Your task to perform on an android device: toggle priority inbox in the gmail app Image 0: 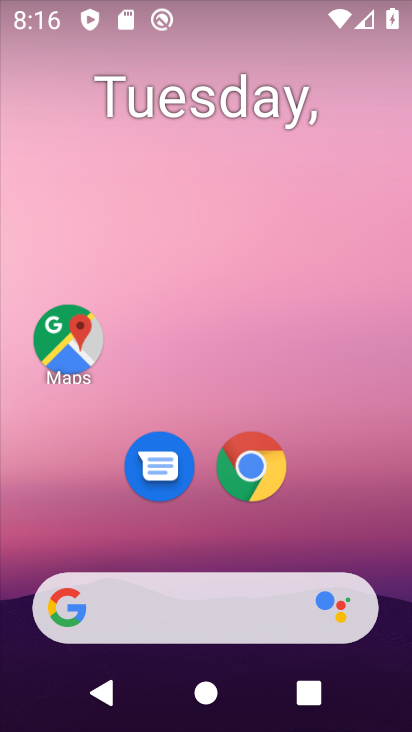
Step 0: drag from (375, 541) to (328, 96)
Your task to perform on an android device: toggle priority inbox in the gmail app Image 1: 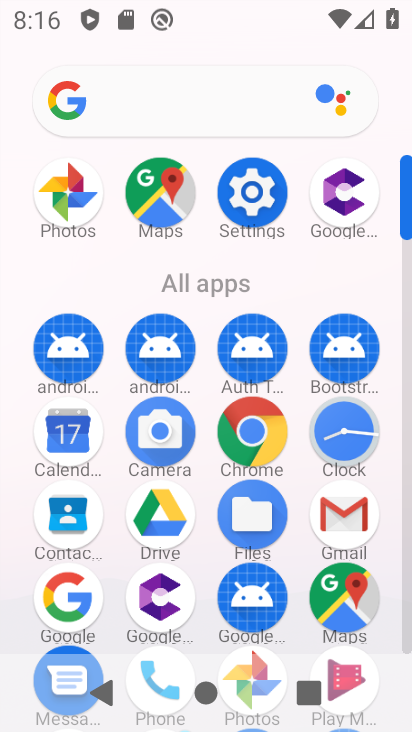
Step 1: click (341, 525)
Your task to perform on an android device: toggle priority inbox in the gmail app Image 2: 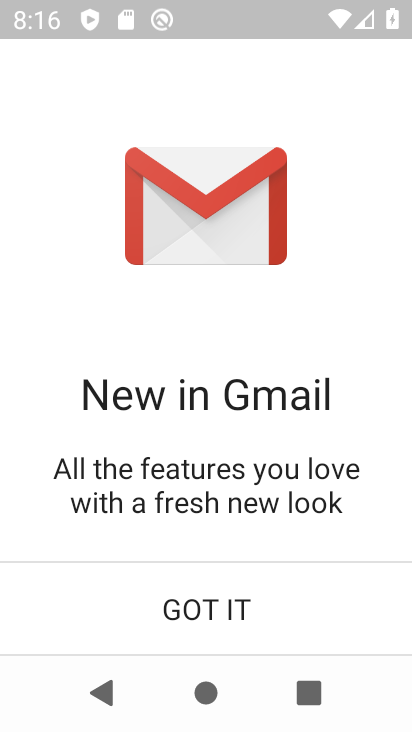
Step 2: click (237, 609)
Your task to perform on an android device: toggle priority inbox in the gmail app Image 3: 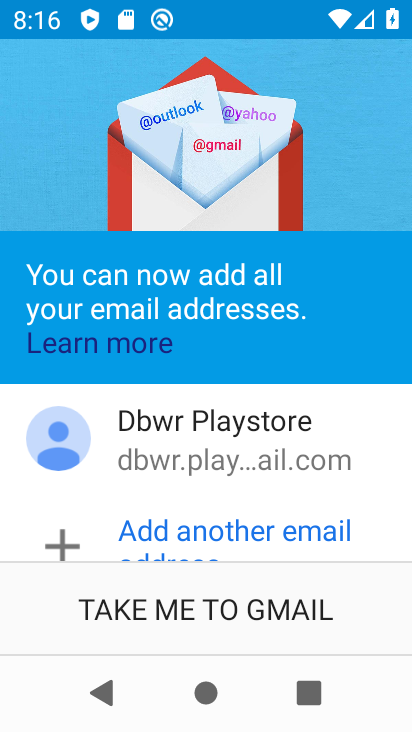
Step 3: click (237, 609)
Your task to perform on an android device: toggle priority inbox in the gmail app Image 4: 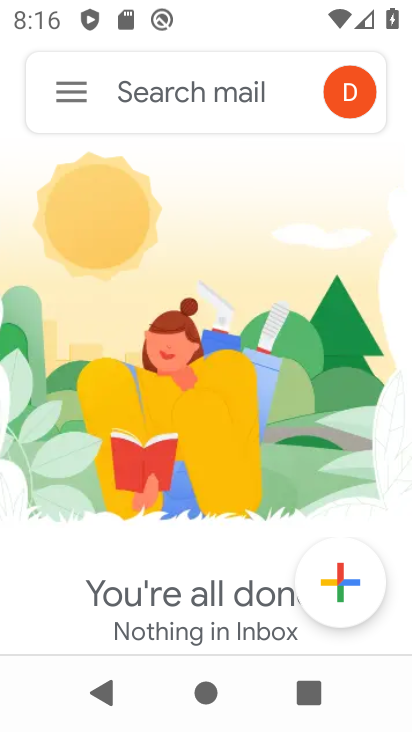
Step 4: click (65, 109)
Your task to perform on an android device: toggle priority inbox in the gmail app Image 5: 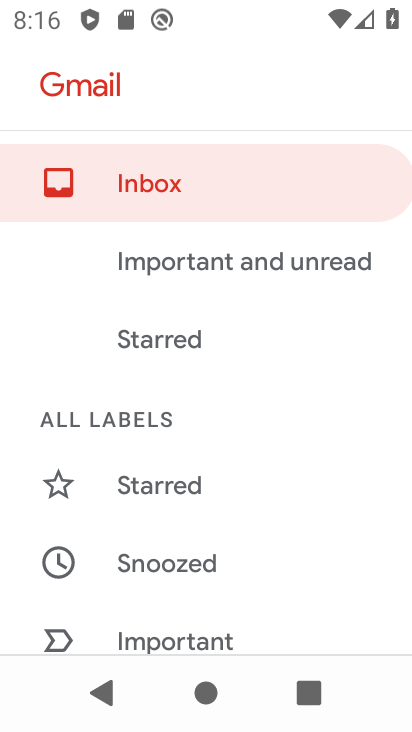
Step 5: drag from (368, 603) to (306, 117)
Your task to perform on an android device: toggle priority inbox in the gmail app Image 6: 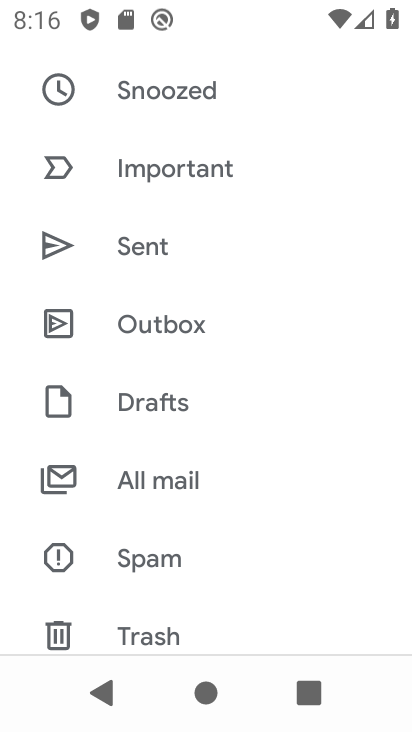
Step 6: drag from (337, 592) to (317, 115)
Your task to perform on an android device: toggle priority inbox in the gmail app Image 7: 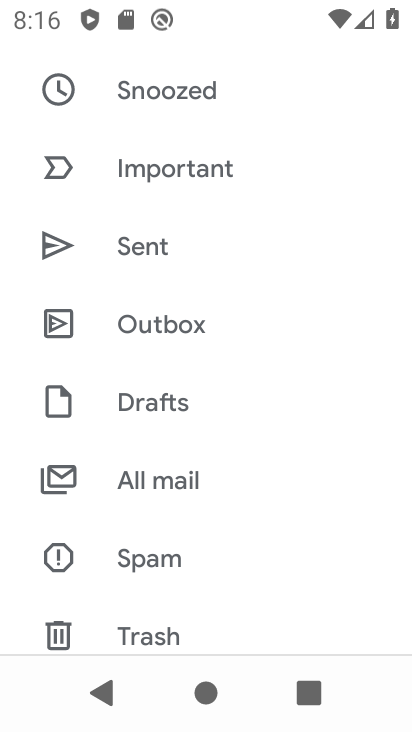
Step 7: drag from (246, 602) to (237, 93)
Your task to perform on an android device: toggle priority inbox in the gmail app Image 8: 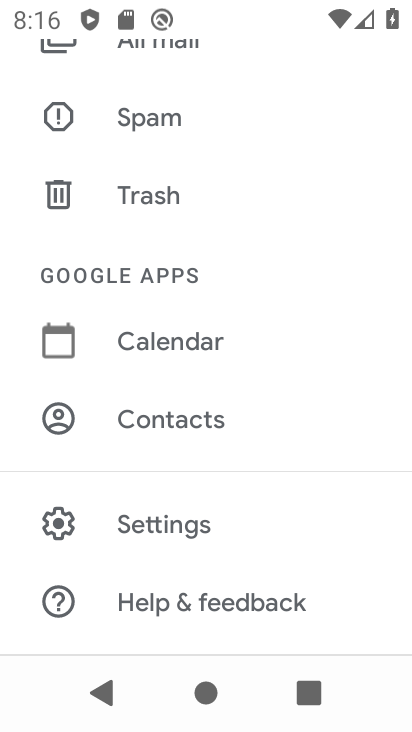
Step 8: click (196, 531)
Your task to perform on an android device: toggle priority inbox in the gmail app Image 9: 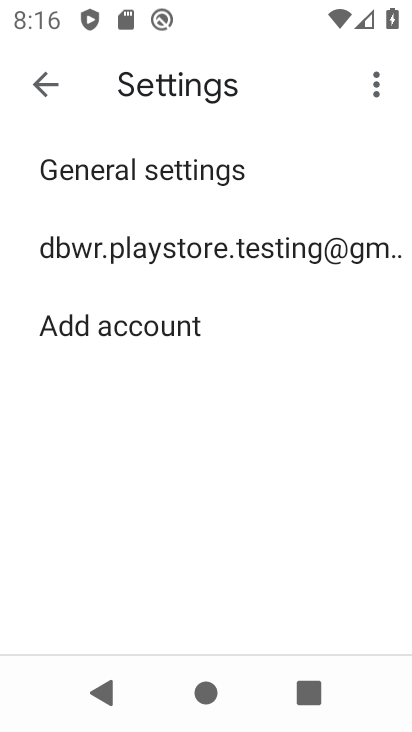
Step 9: click (238, 263)
Your task to perform on an android device: toggle priority inbox in the gmail app Image 10: 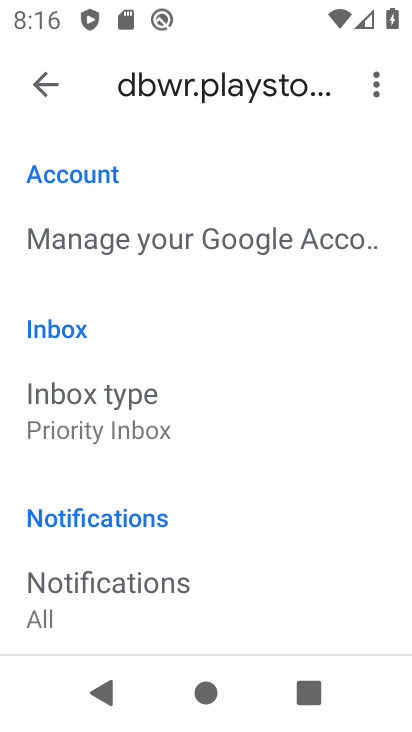
Step 10: click (222, 434)
Your task to perform on an android device: toggle priority inbox in the gmail app Image 11: 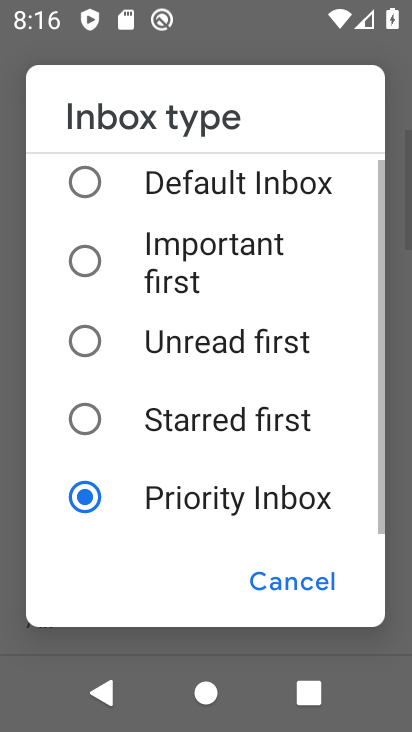
Step 11: click (239, 177)
Your task to perform on an android device: toggle priority inbox in the gmail app Image 12: 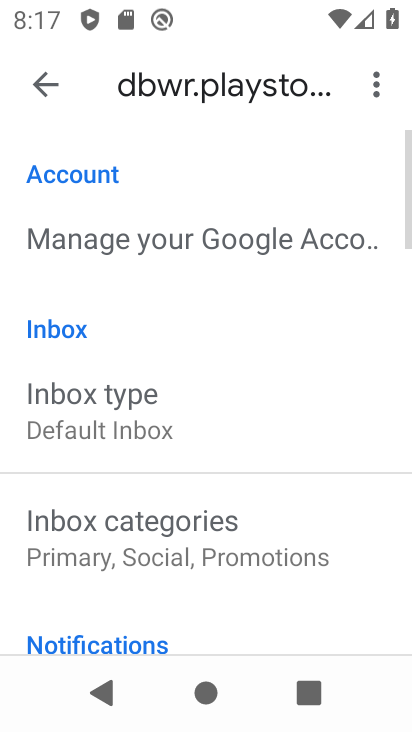
Step 12: task complete